Your task to perform on an android device: View the shopping cart on target. Add apple airpods to the cart on target, then select checkout. Image 0: 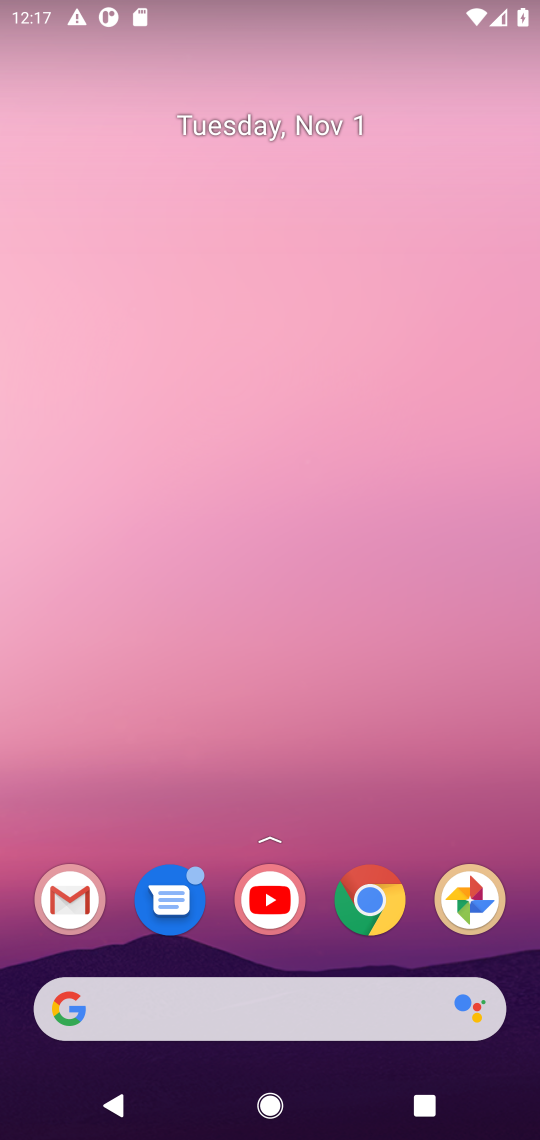
Step 0: click (365, 899)
Your task to perform on an android device: View the shopping cart on target. Add apple airpods to the cart on target, then select checkout. Image 1: 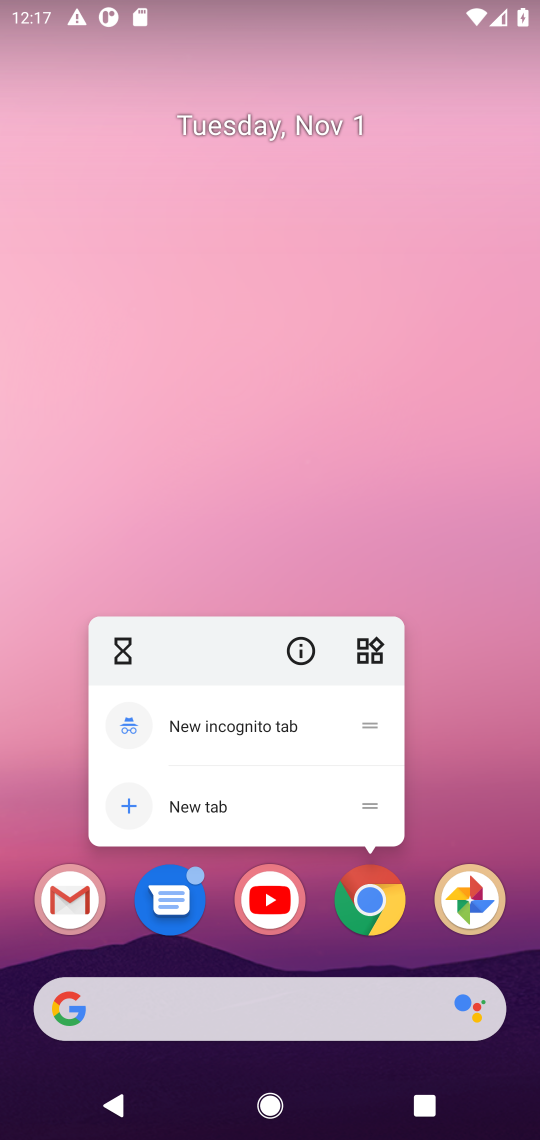
Step 1: click (383, 910)
Your task to perform on an android device: View the shopping cart on target. Add apple airpods to the cart on target, then select checkout. Image 2: 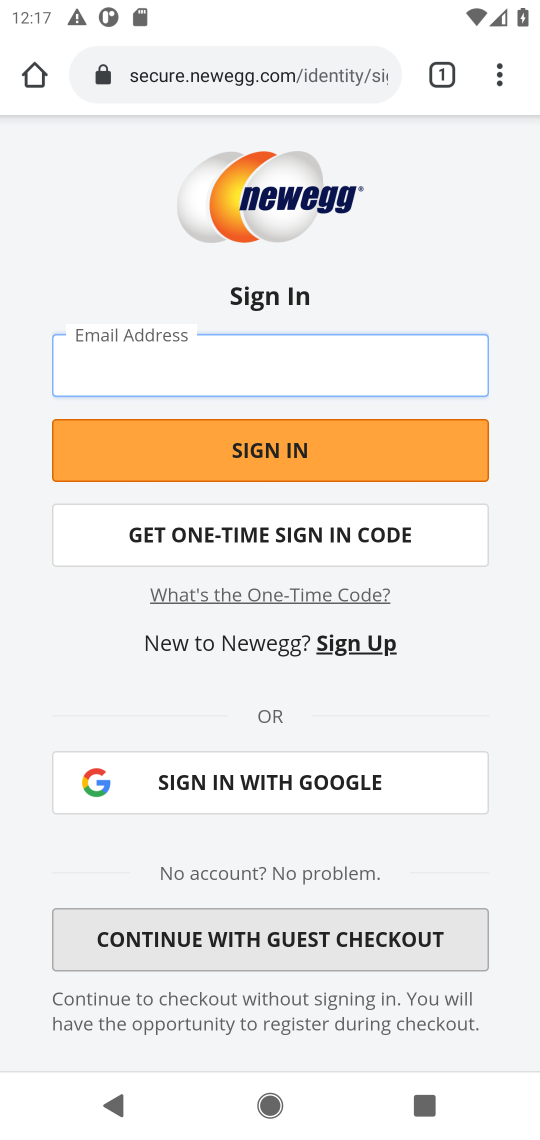
Step 2: click (247, 77)
Your task to perform on an android device: View the shopping cart on target. Add apple airpods to the cart on target, then select checkout. Image 3: 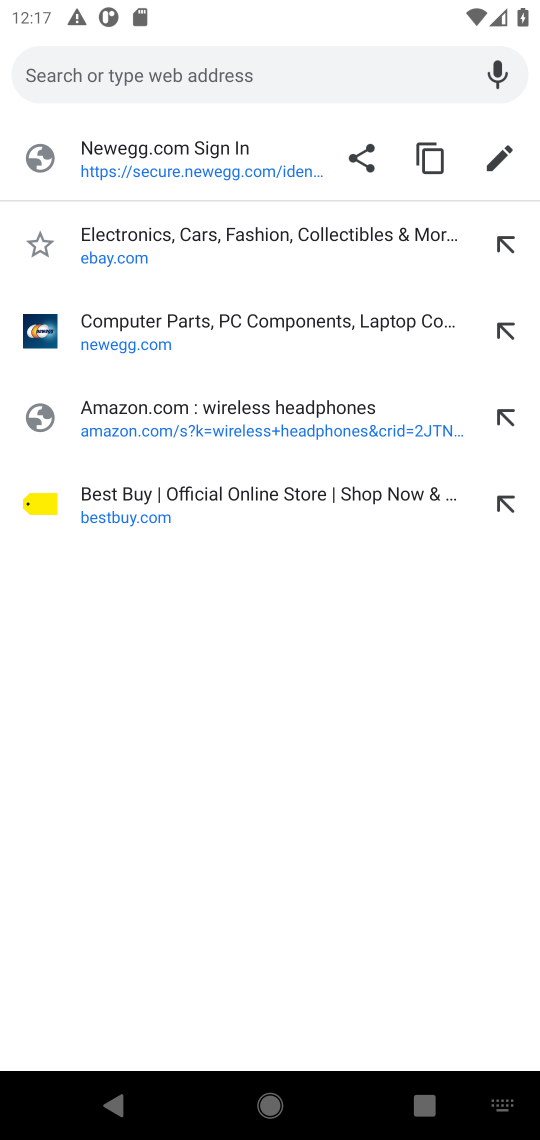
Step 3: type "target"
Your task to perform on an android device: View the shopping cart on target. Add apple airpods to the cart on target, then select checkout. Image 4: 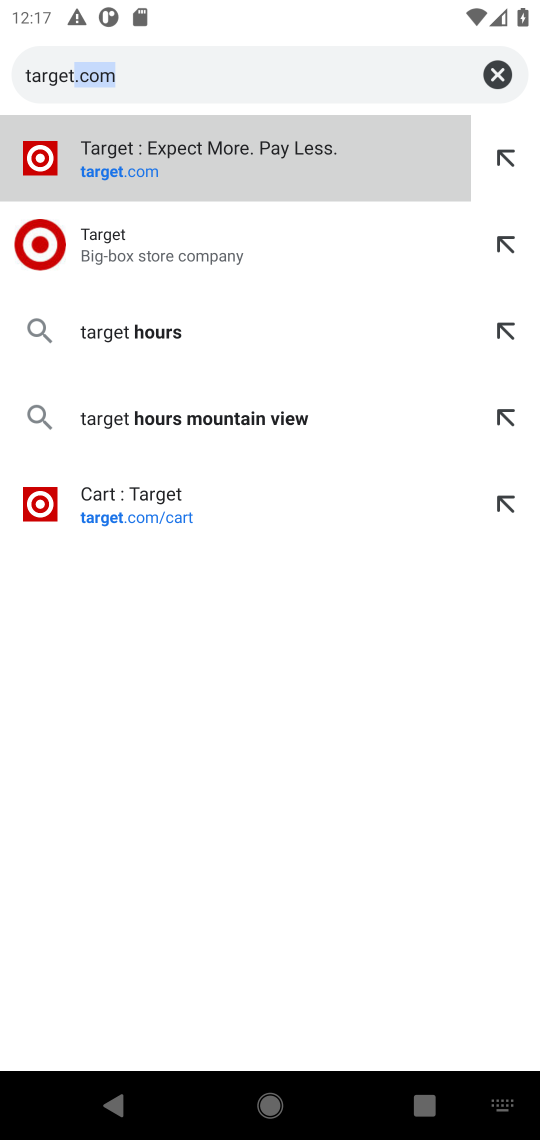
Step 4: press enter
Your task to perform on an android device: View the shopping cart on target. Add apple airpods to the cart on target, then select checkout. Image 5: 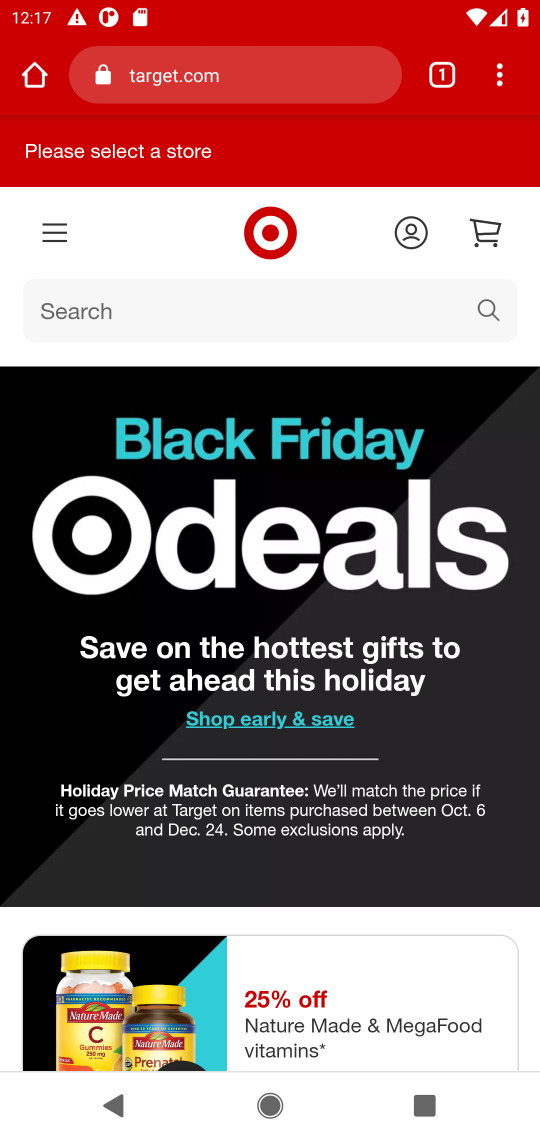
Step 5: click (484, 238)
Your task to perform on an android device: View the shopping cart on target. Add apple airpods to the cart on target, then select checkout. Image 6: 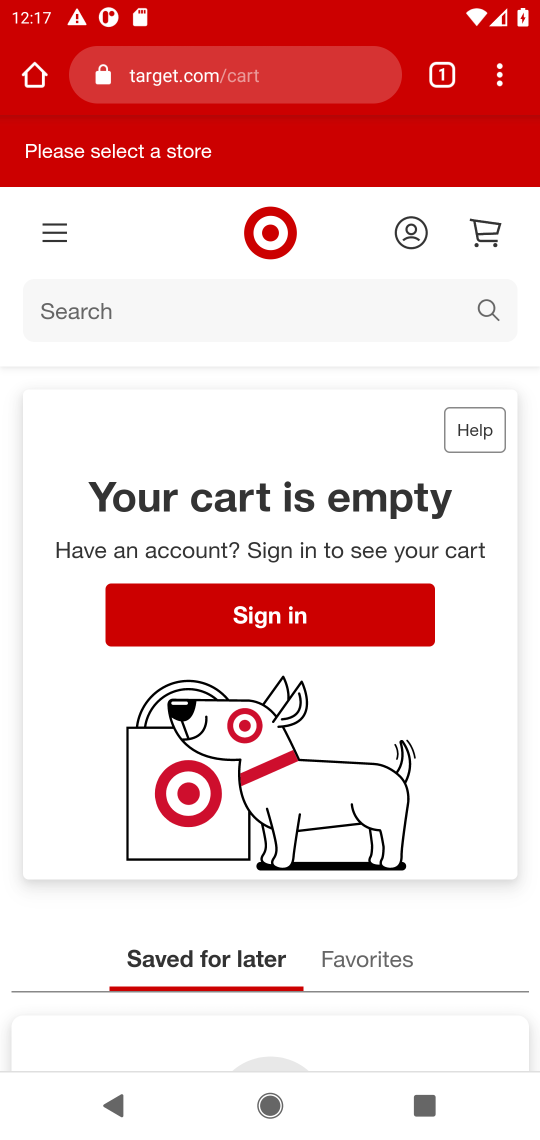
Step 6: click (271, 314)
Your task to perform on an android device: View the shopping cart on target. Add apple airpods to the cart on target, then select checkout. Image 7: 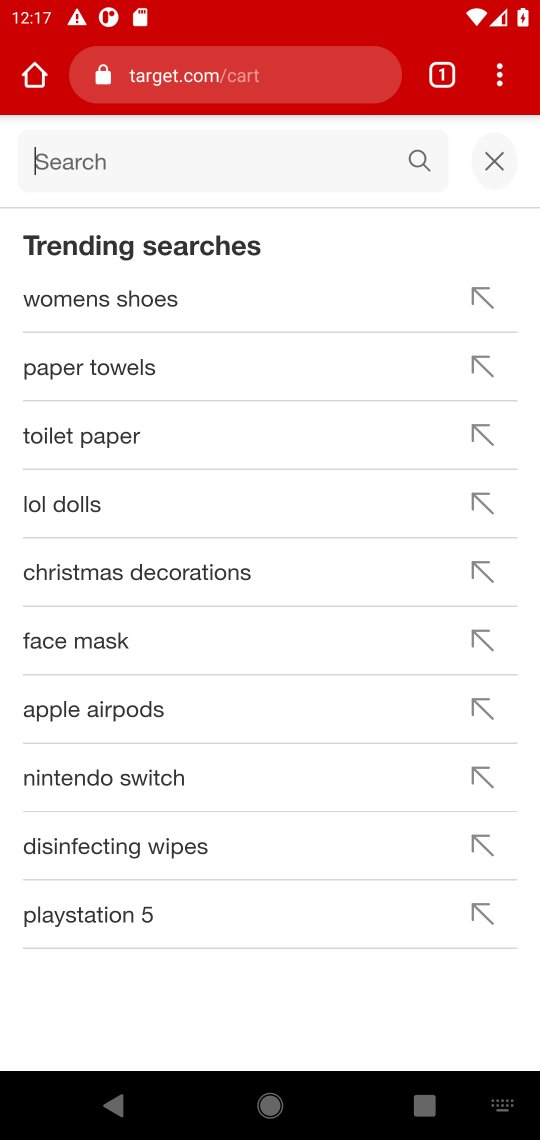
Step 7: type "apple airpods"
Your task to perform on an android device: View the shopping cart on target. Add apple airpods to the cart on target, then select checkout. Image 8: 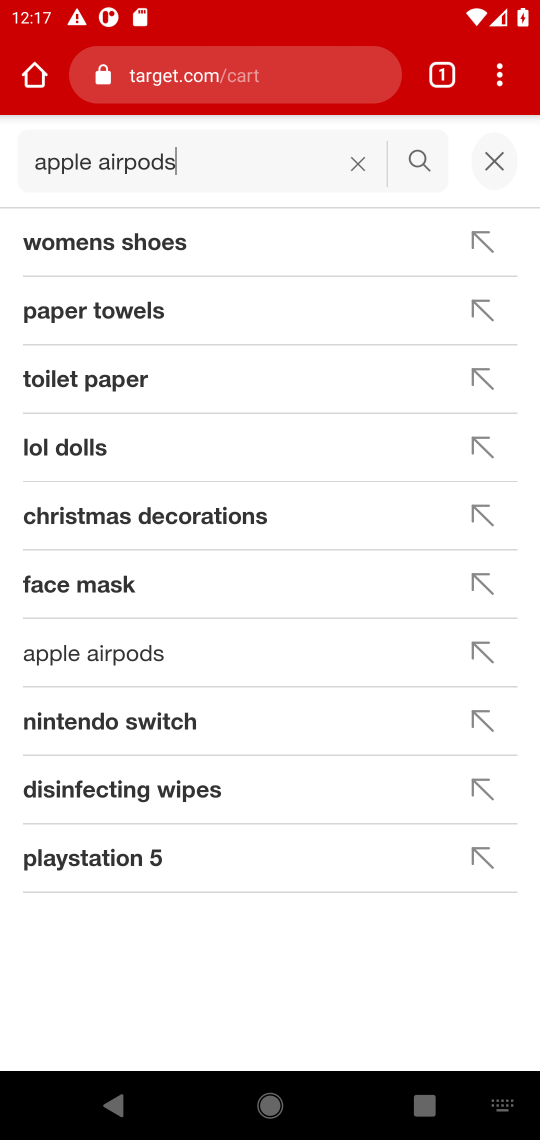
Step 8: press enter
Your task to perform on an android device: View the shopping cart on target. Add apple airpods to the cart on target, then select checkout. Image 9: 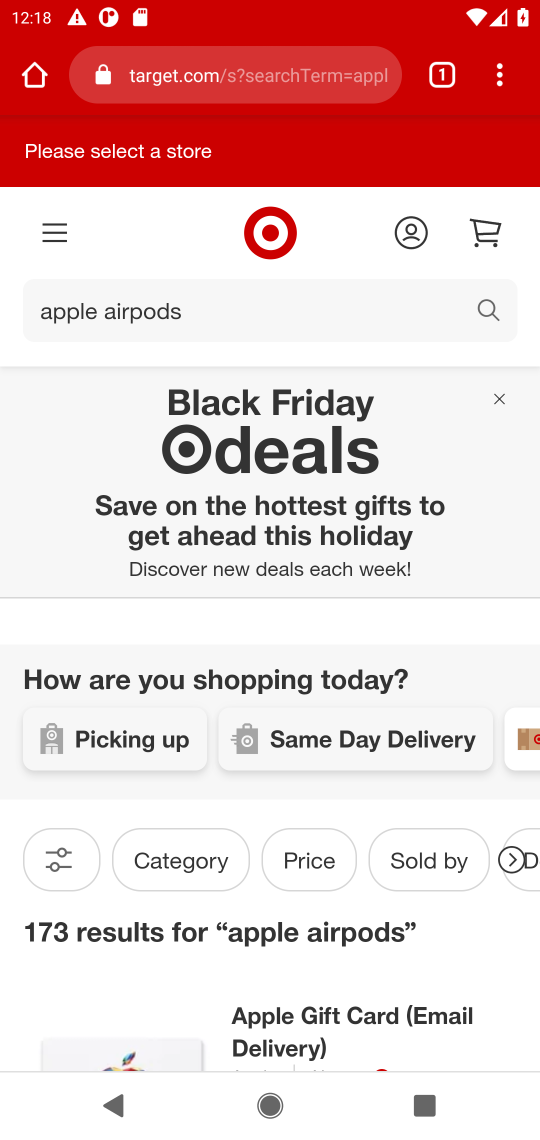
Step 9: drag from (424, 692) to (422, 403)
Your task to perform on an android device: View the shopping cart on target. Add apple airpods to the cart on target, then select checkout. Image 10: 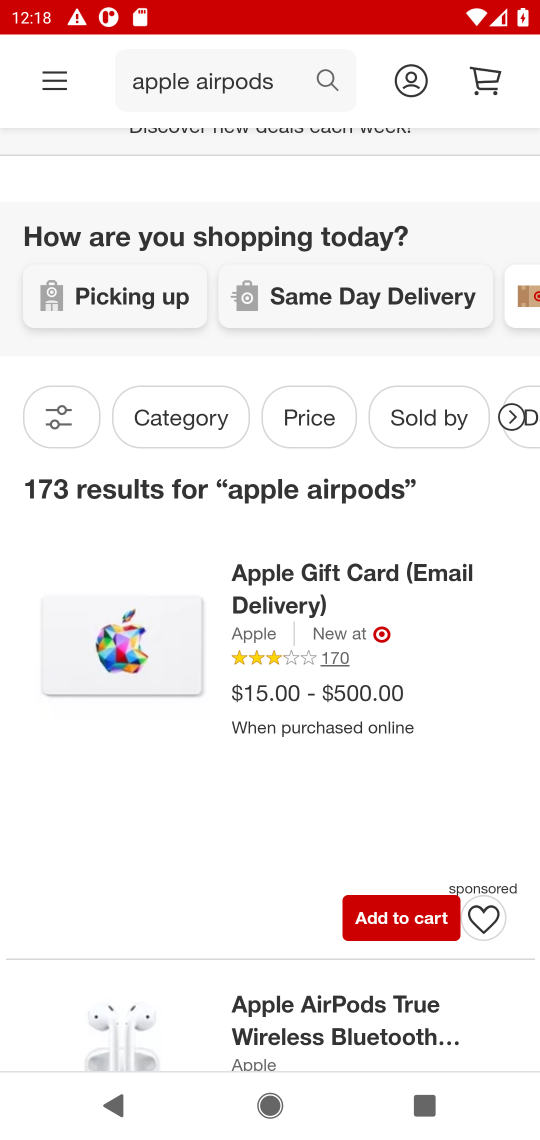
Step 10: drag from (231, 782) to (242, 561)
Your task to perform on an android device: View the shopping cart on target. Add apple airpods to the cart on target, then select checkout. Image 11: 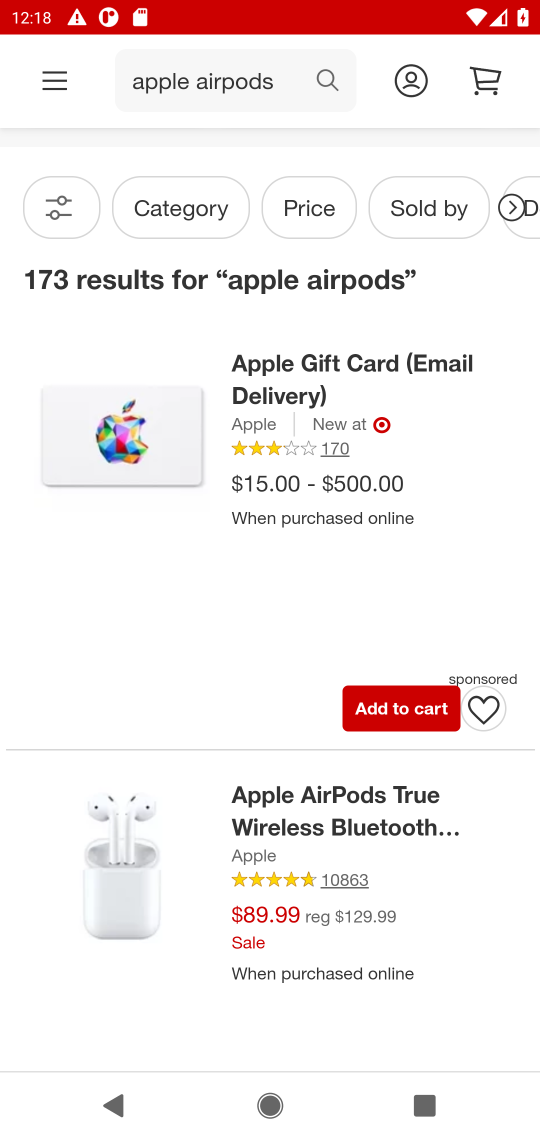
Step 11: click (105, 828)
Your task to perform on an android device: View the shopping cart on target. Add apple airpods to the cart on target, then select checkout. Image 12: 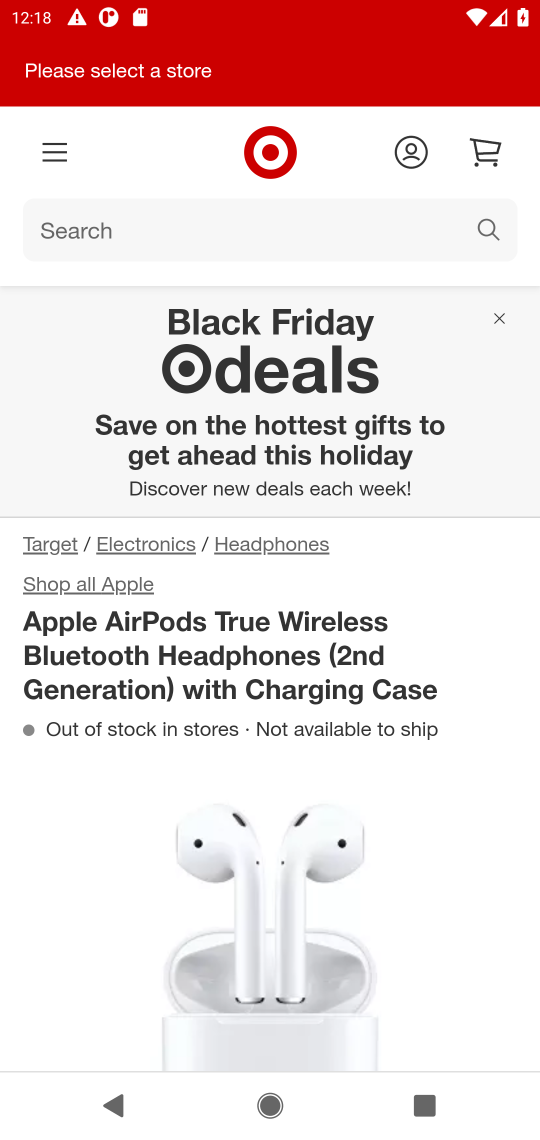
Step 12: drag from (371, 881) to (484, 621)
Your task to perform on an android device: View the shopping cart on target. Add apple airpods to the cart on target, then select checkout. Image 13: 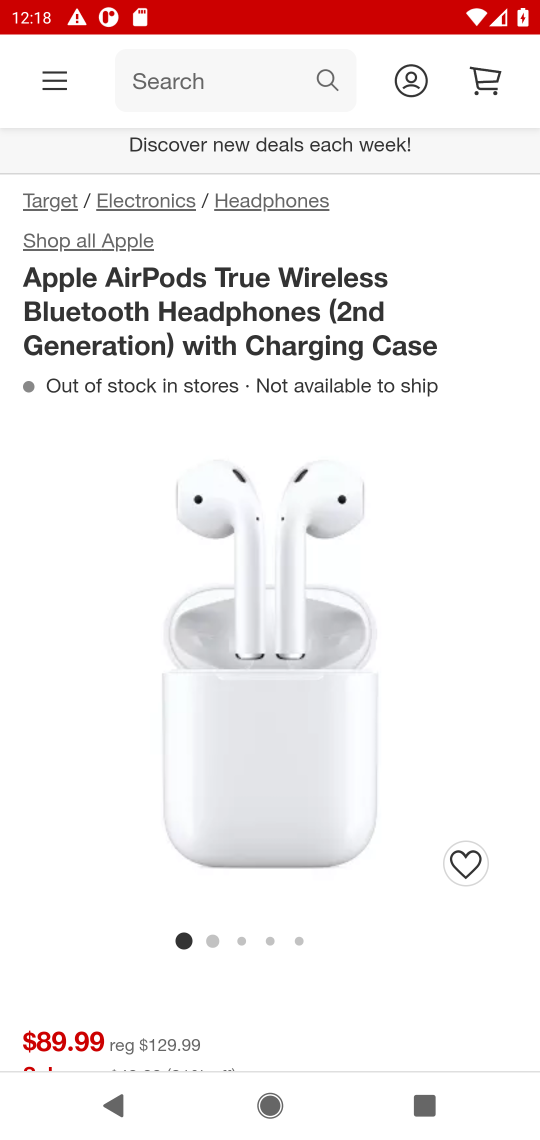
Step 13: drag from (365, 791) to (465, 130)
Your task to perform on an android device: View the shopping cart on target. Add apple airpods to the cart on target, then select checkout. Image 14: 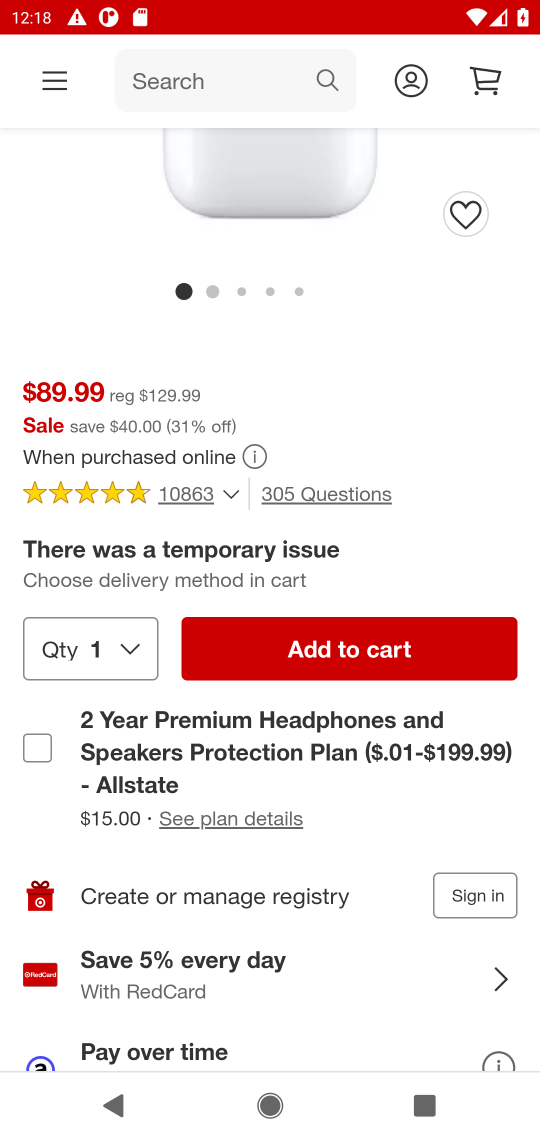
Step 14: click (393, 658)
Your task to perform on an android device: View the shopping cart on target. Add apple airpods to the cart on target, then select checkout. Image 15: 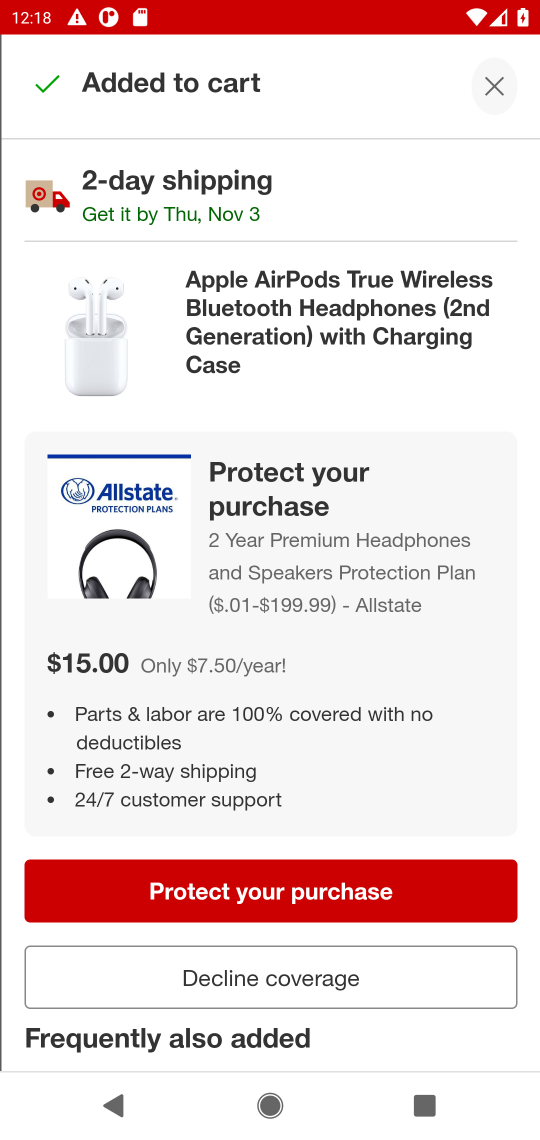
Step 15: click (502, 87)
Your task to perform on an android device: View the shopping cart on target. Add apple airpods to the cart on target, then select checkout. Image 16: 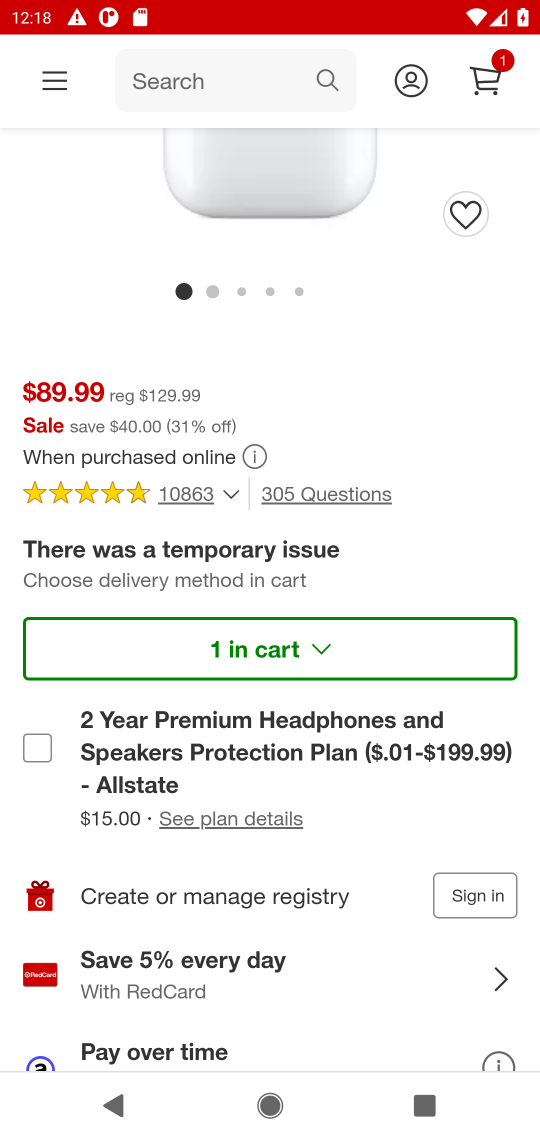
Step 16: drag from (418, 215) to (418, 549)
Your task to perform on an android device: View the shopping cart on target. Add apple airpods to the cart on target, then select checkout. Image 17: 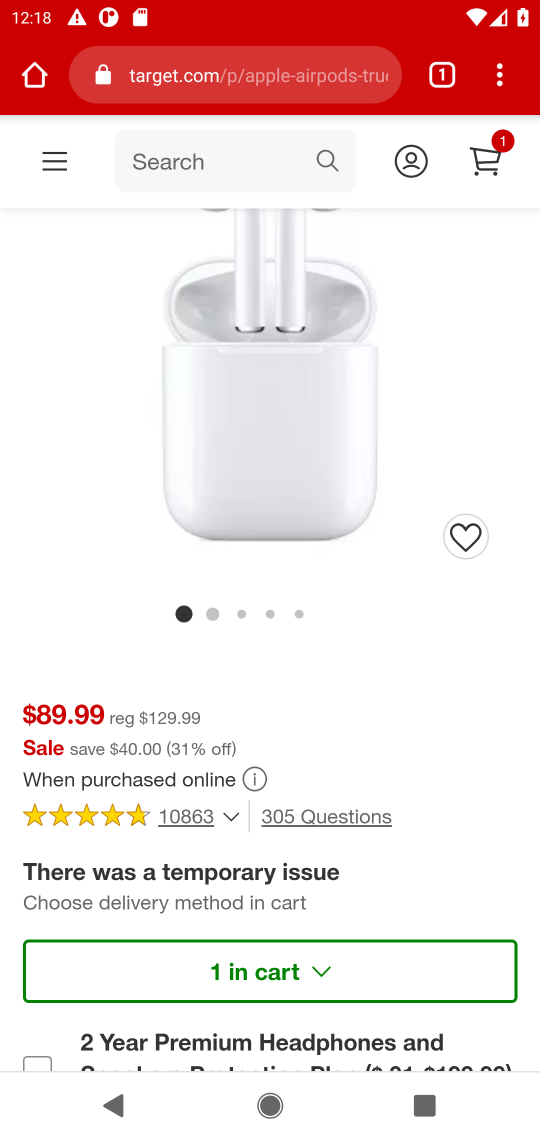
Step 17: click (498, 165)
Your task to perform on an android device: View the shopping cart on target. Add apple airpods to the cart on target, then select checkout. Image 18: 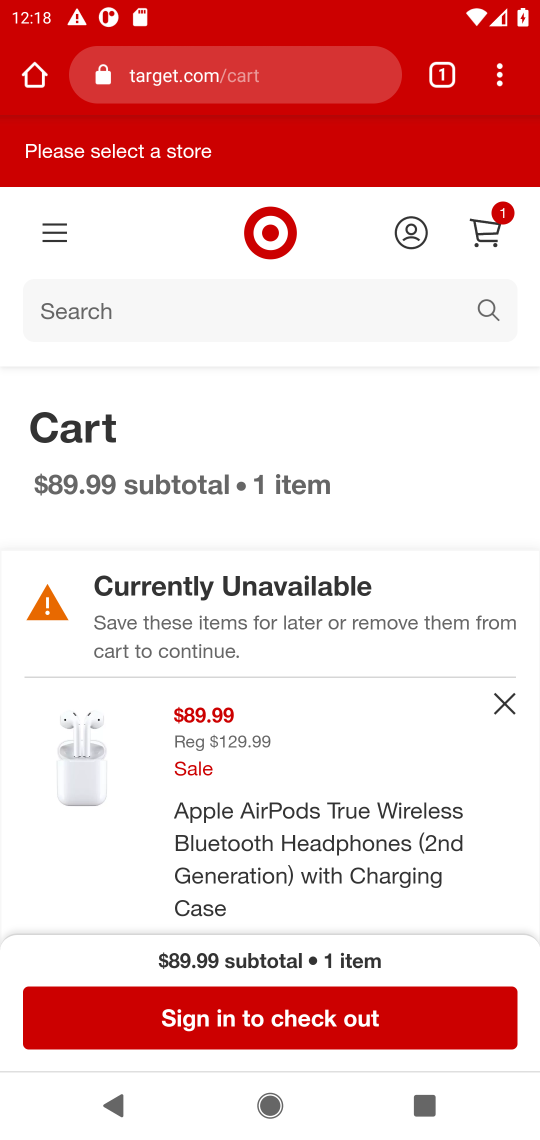
Step 18: click (313, 1014)
Your task to perform on an android device: View the shopping cart on target. Add apple airpods to the cart on target, then select checkout. Image 19: 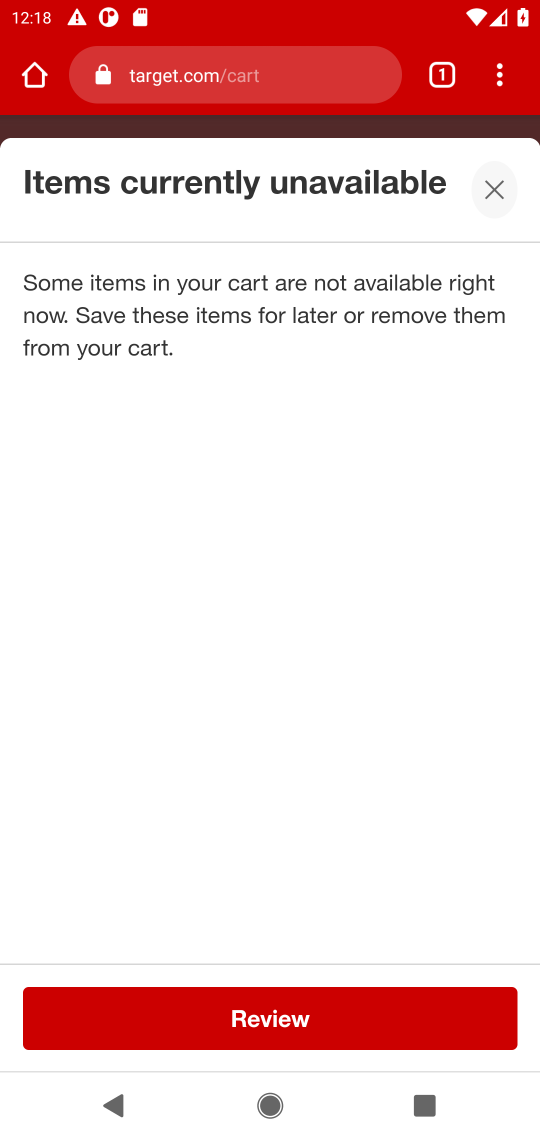
Step 19: task complete